Your task to perform on an android device: Go to network settings Image 0: 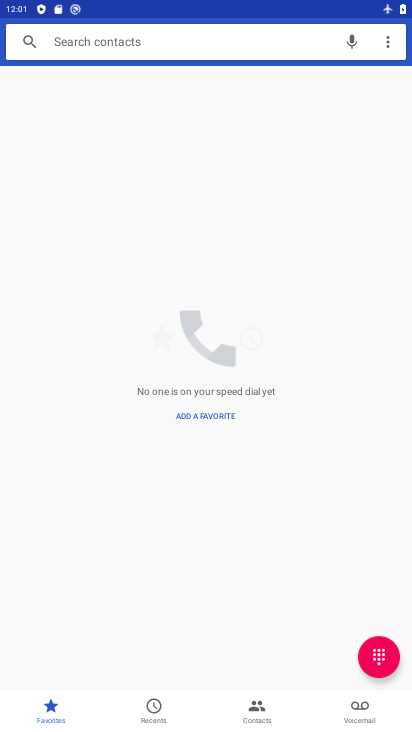
Step 0: press home button
Your task to perform on an android device: Go to network settings Image 1: 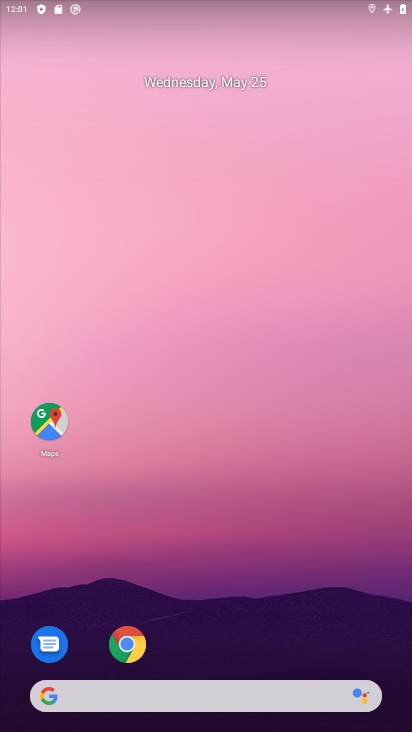
Step 1: drag from (209, 562) to (144, 167)
Your task to perform on an android device: Go to network settings Image 2: 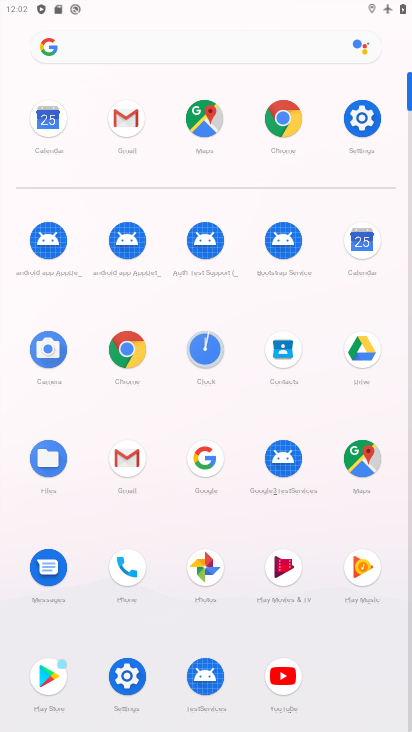
Step 2: click (361, 126)
Your task to perform on an android device: Go to network settings Image 3: 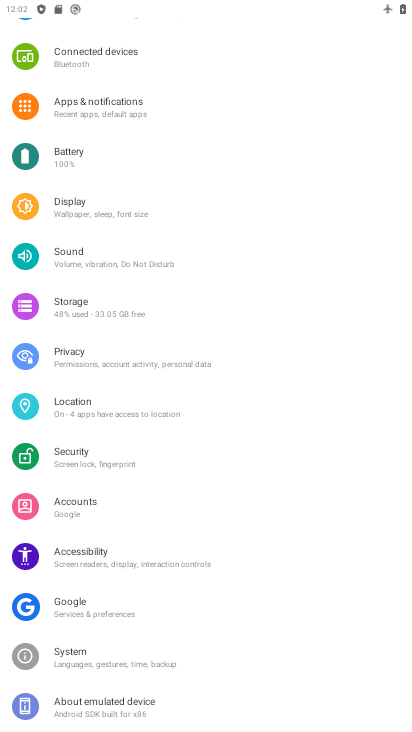
Step 3: drag from (208, 181) to (201, 500)
Your task to perform on an android device: Go to network settings Image 4: 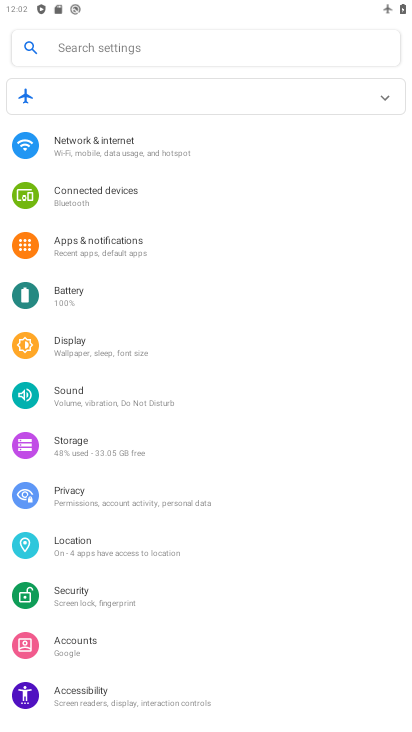
Step 4: click (94, 136)
Your task to perform on an android device: Go to network settings Image 5: 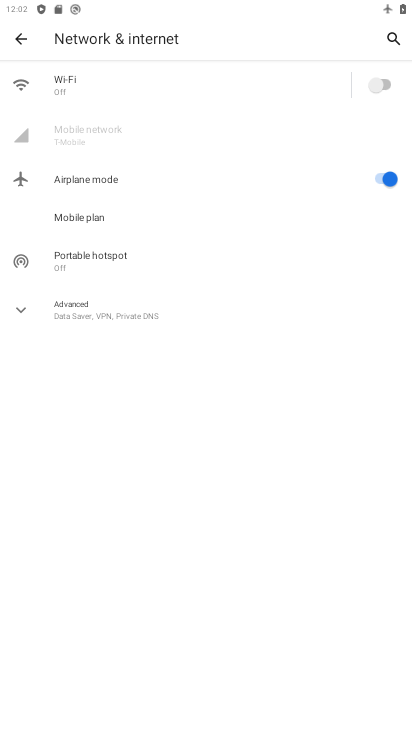
Step 5: task complete